Your task to perform on an android device: open app "Facebook" (install if not already installed) Image 0: 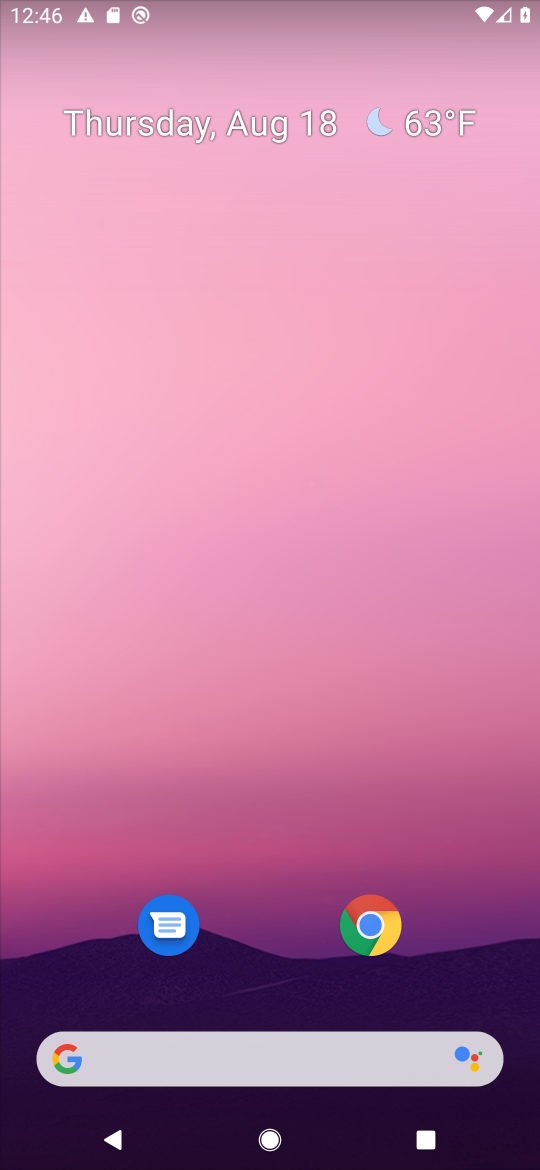
Step 0: drag from (244, 942) to (208, 128)
Your task to perform on an android device: open app "Facebook" (install if not already installed) Image 1: 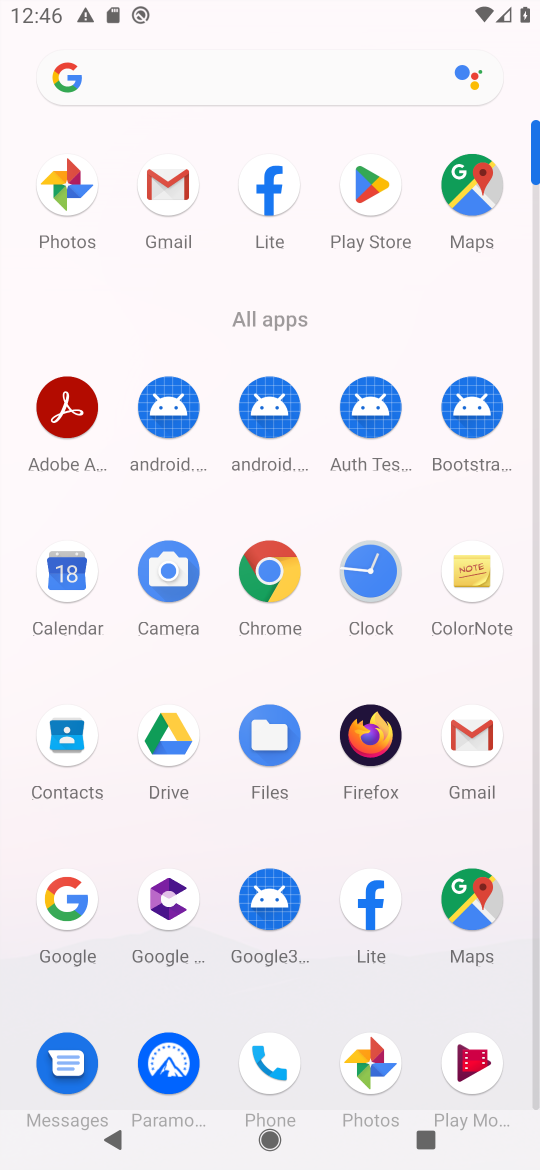
Step 1: click (367, 186)
Your task to perform on an android device: open app "Facebook" (install if not already installed) Image 2: 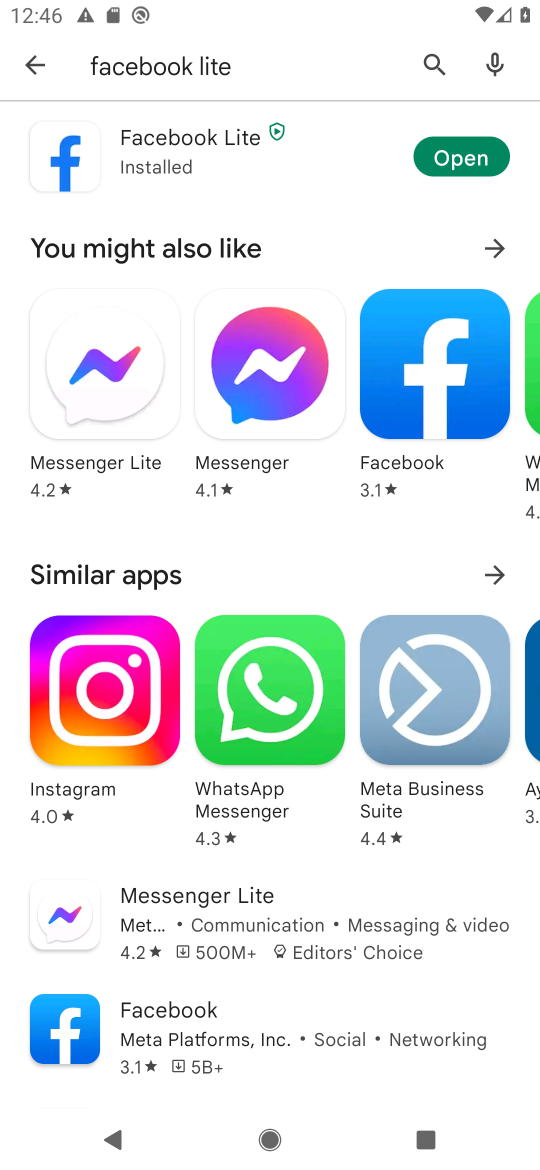
Step 2: click (460, 164)
Your task to perform on an android device: open app "Facebook" (install if not already installed) Image 3: 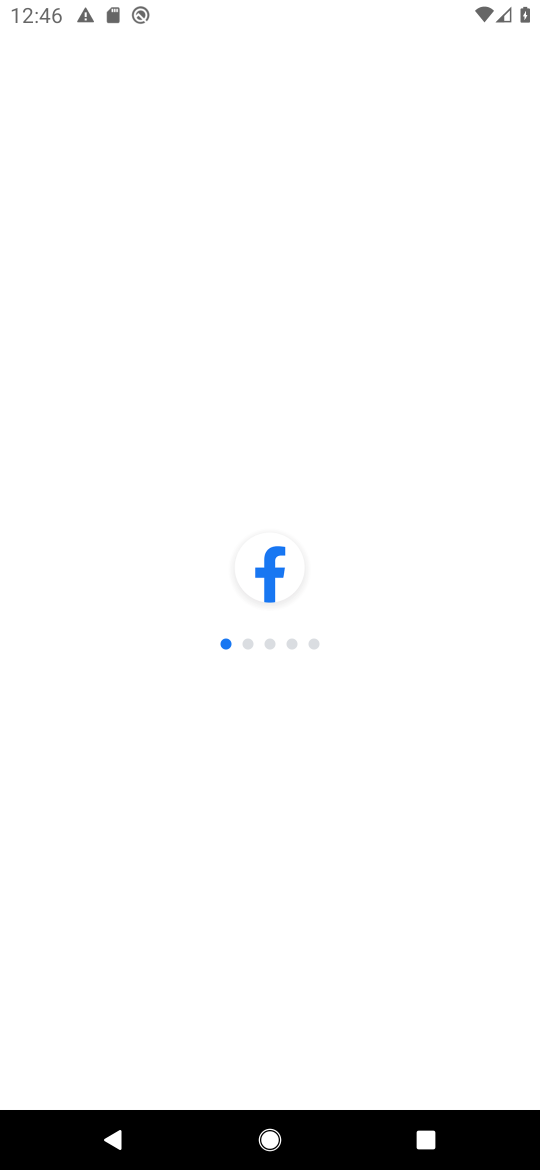
Step 3: task complete